Your task to perform on an android device: change alarm snooze length Image 0: 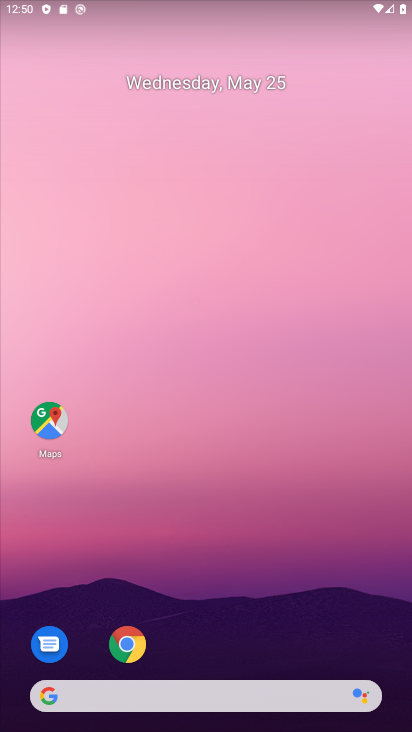
Step 0: drag from (216, 633) to (257, 107)
Your task to perform on an android device: change alarm snooze length Image 1: 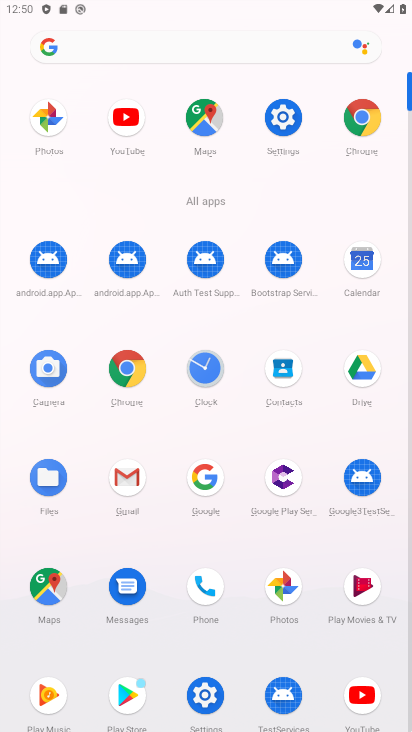
Step 1: click (207, 374)
Your task to perform on an android device: change alarm snooze length Image 2: 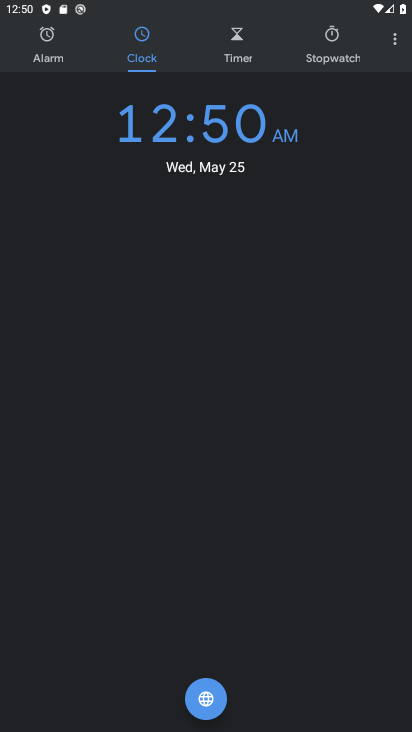
Step 2: click (390, 44)
Your task to perform on an android device: change alarm snooze length Image 3: 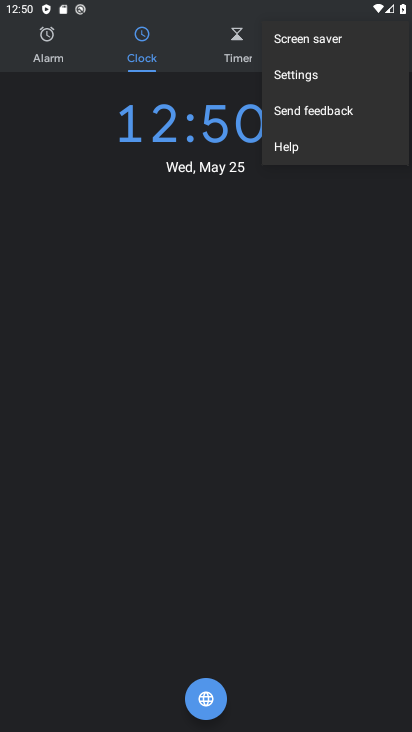
Step 3: click (315, 76)
Your task to perform on an android device: change alarm snooze length Image 4: 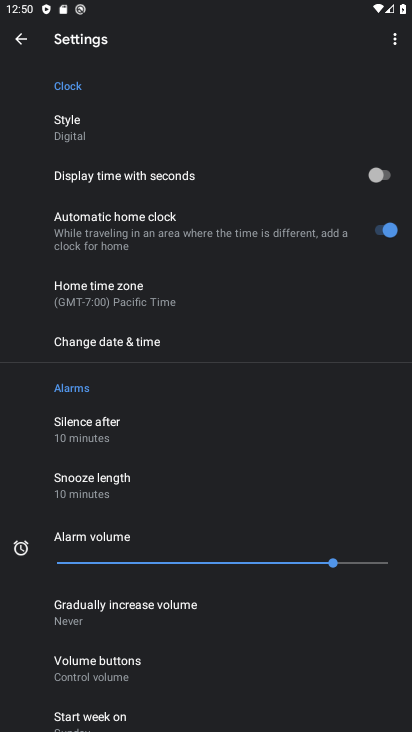
Step 4: click (95, 487)
Your task to perform on an android device: change alarm snooze length Image 5: 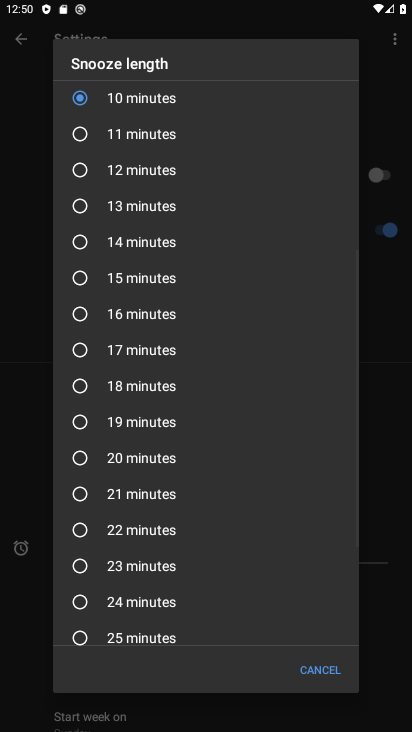
Step 5: click (94, 488)
Your task to perform on an android device: change alarm snooze length Image 6: 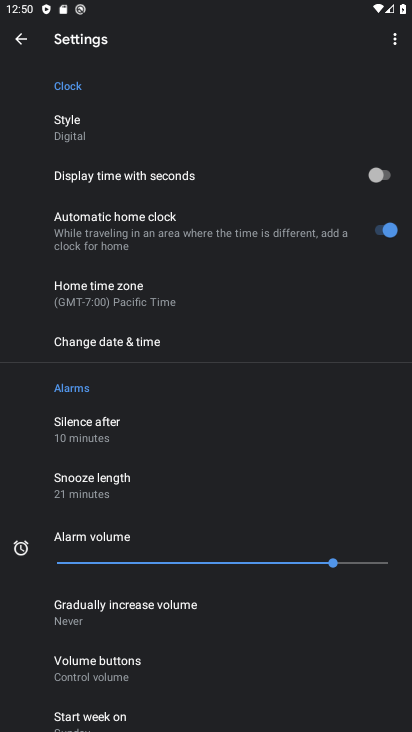
Step 6: task complete